Your task to perform on an android device: turn smart compose on in the gmail app Image 0: 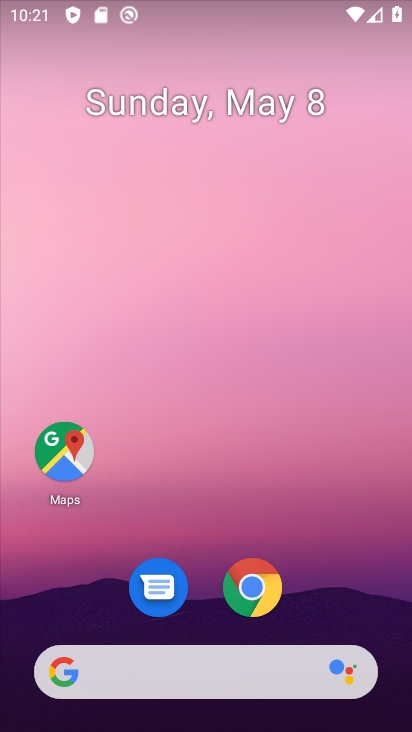
Step 0: drag from (361, 586) to (171, 28)
Your task to perform on an android device: turn smart compose on in the gmail app Image 1: 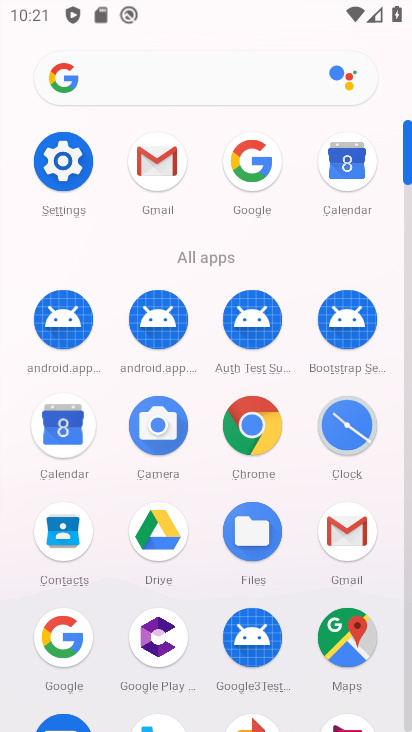
Step 1: click (349, 516)
Your task to perform on an android device: turn smart compose on in the gmail app Image 2: 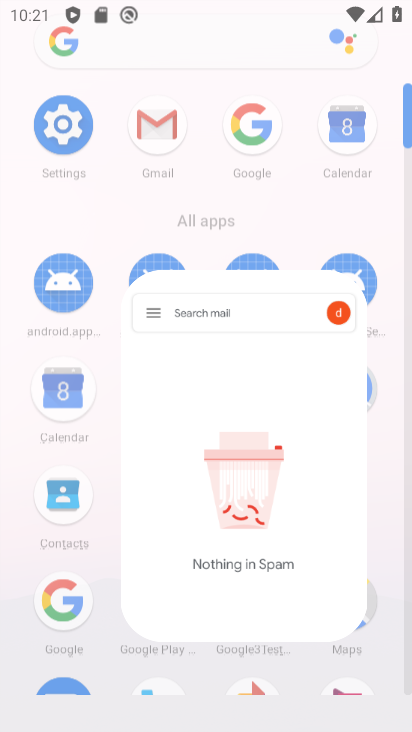
Step 2: click (349, 516)
Your task to perform on an android device: turn smart compose on in the gmail app Image 3: 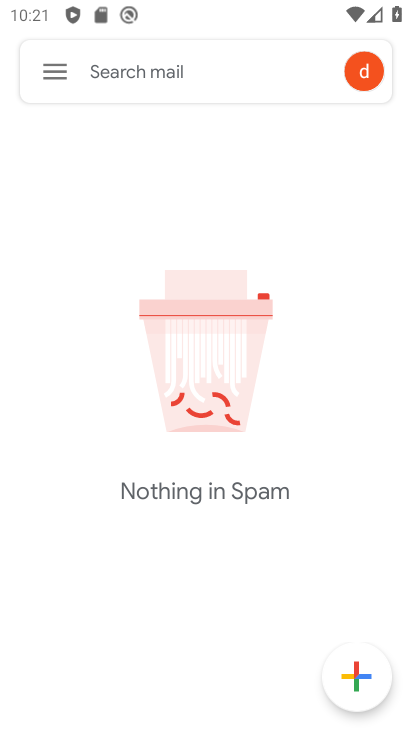
Step 3: click (54, 79)
Your task to perform on an android device: turn smart compose on in the gmail app Image 4: 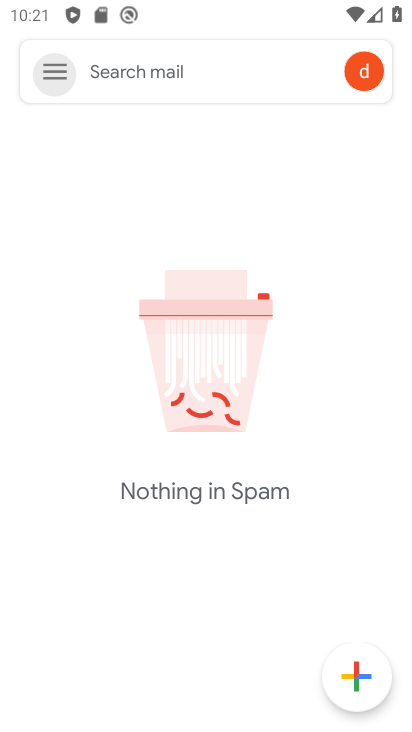
Step 4: click (54, 79)
Your task to perform on an android device: turn smart compose on in the gmail app Image 5: 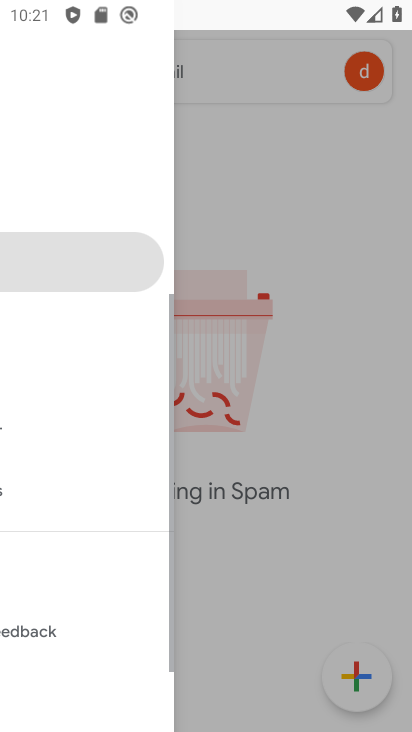
Step 5: click (54, 79)
Your task to perform on an android device: turn smart compose on in the gmail app Image 6: 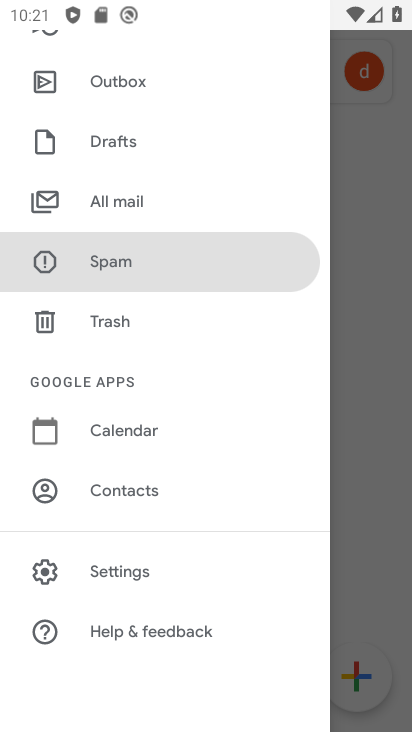
Step 6: click (109, 565)
Your task to perform on an android device: turn smart compose on in the gmail app Image 7: 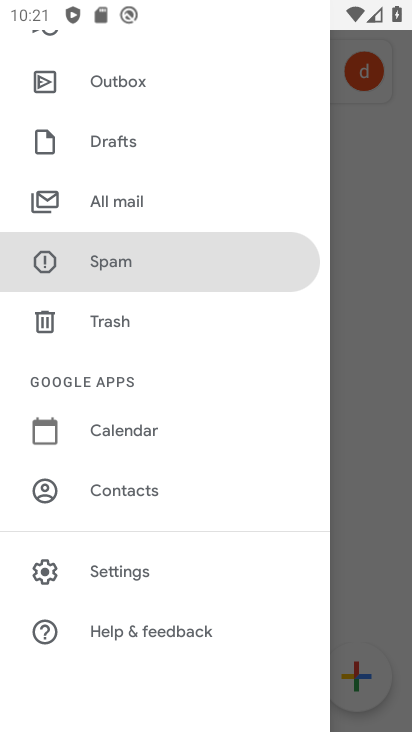
Step 7: click (109, 564)
Your task to perform on an android device: turn smart compose on in the gmail app Image 8: 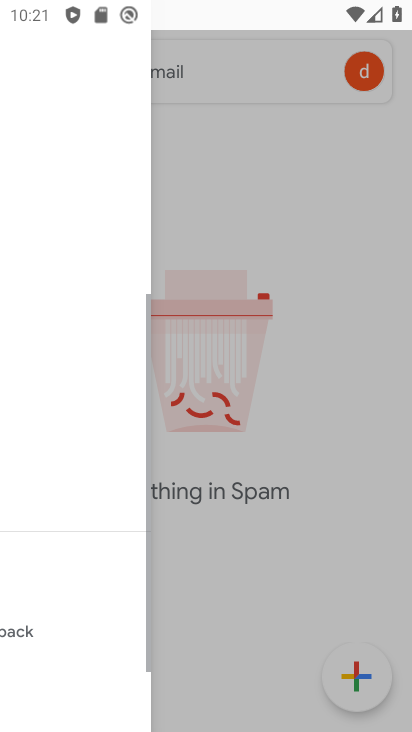
Step 8: click (112, 559)
Your task to perform on an android device: turn smart compose on in the gmail app Image 9: 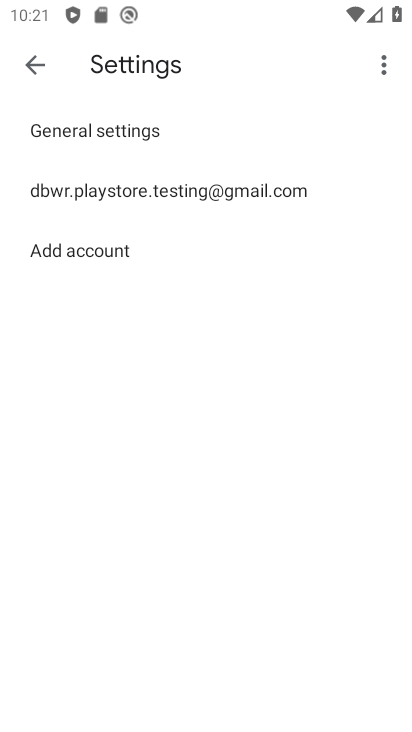
Step 9: click (170, 186)
Your task to perform on an android device: turn smart compose on in the gmail app Image 10: 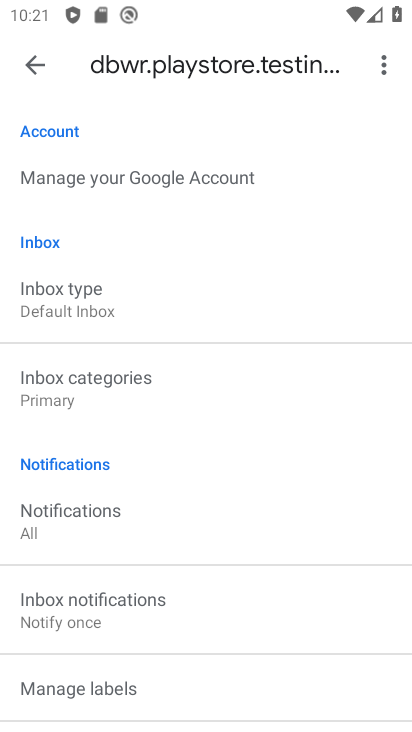
Step 10: task complete